Your task to perform on an android device: change keyboard looks Image 0: 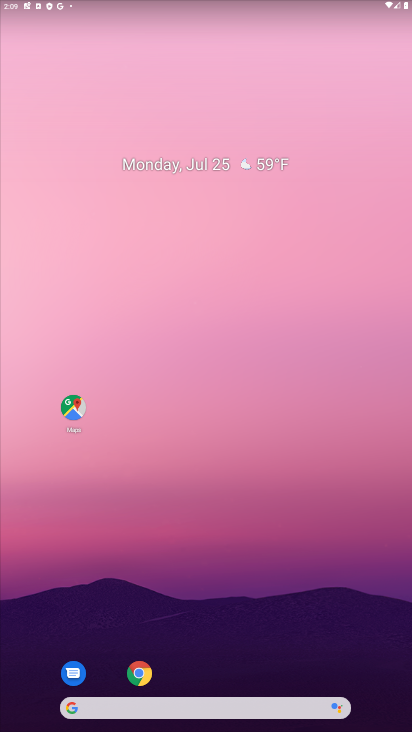
Step 0: drag from (191, 657) to (246, 159)
Your task to perform on an android device: change keyboard looks Image 1: 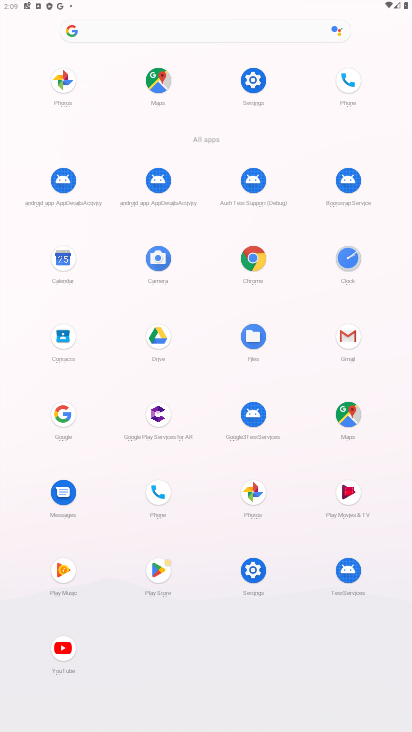
Step 1: click (259, 84)
Your task to perform on an android device: change keyboard looks Image 2: 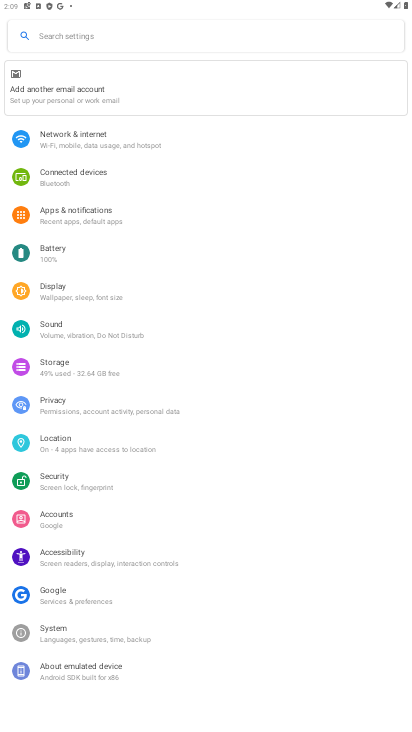
Step 2: click (61, 627)
Your task to perform on an android device: change keyboard looks Image 3: 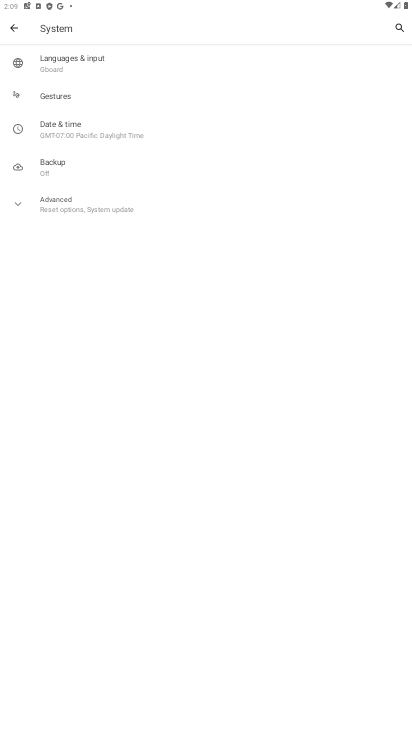
Step 3: click (94, 67)
Your task to perform on an android device: change keyboard looks Image 4: 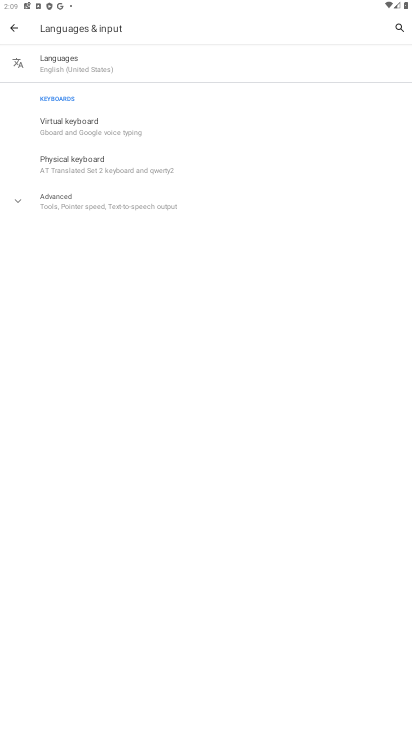
Step 4: click (96, 116)
Your task to perform on an android device: change keyboard looks Image 5: 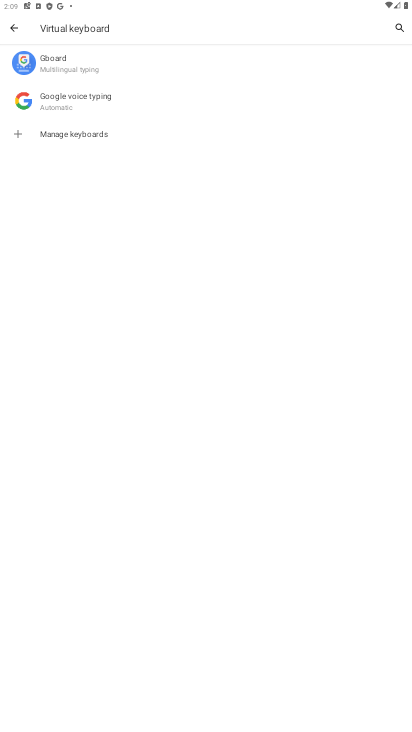
Step 5: click (52, 99)
Your task to perform on an android device: change keyboard looks Image 6: 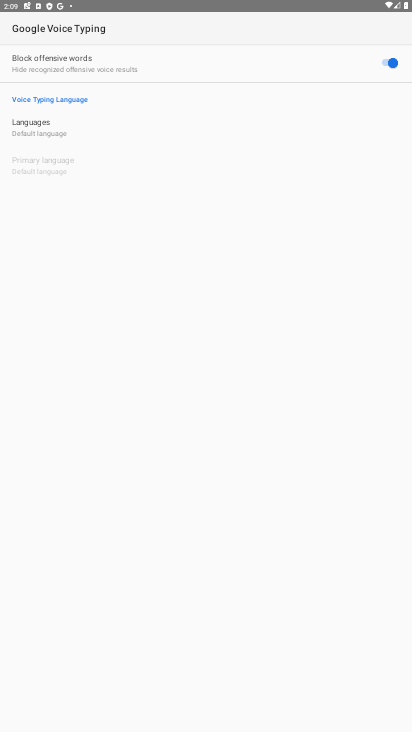
Step 6: click (55, 137)
Your task to perform on an android device: change keyboard looks Image 7: 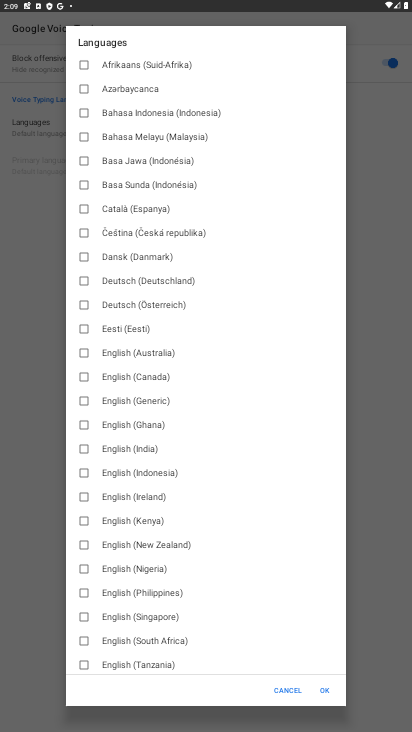
Step 7: click (28, 215)
Your task to perform on an android device: change keyboard looks Image 8: 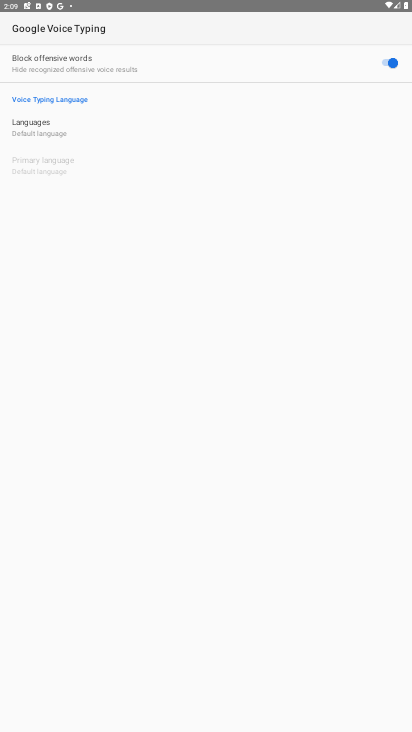
Step 8: press back button
Your task to perform on an android device: change keyboard looks Image 9: 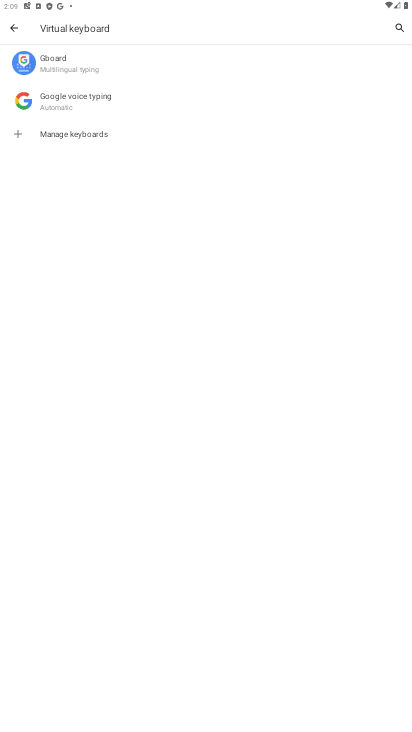
Step 9: click (98, 70)
Your task to perform on an android device: change keyboard looks Image 10: 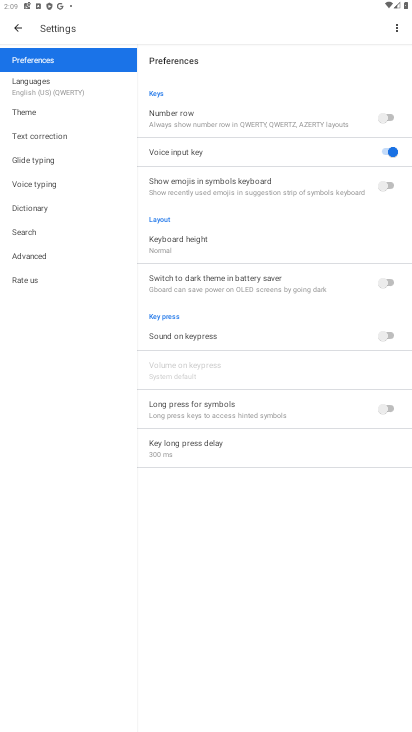
Step 10: click (31, 117)
Your task to perform on an android device: change keyboard looks Image 11: 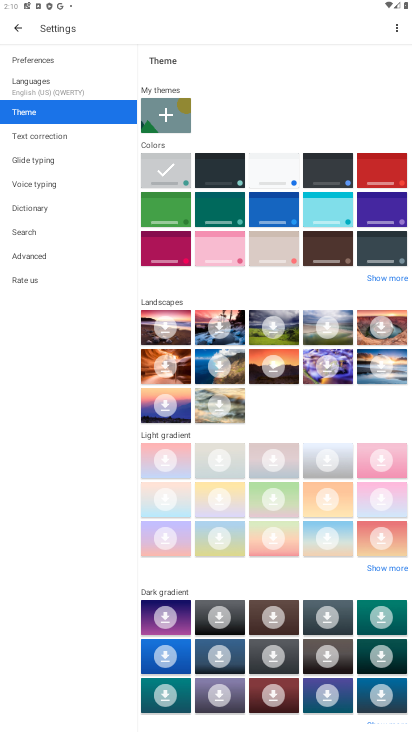
Step 11: click (279, 253)
Your task to perform on an android device: change keyboard looks Image 12: 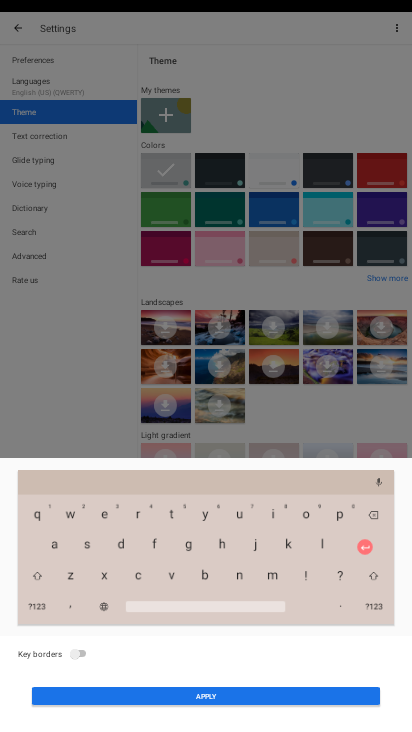
Step 12: click (201, 703)
Your task to perform on an android device: change keyboard looks Image 13: 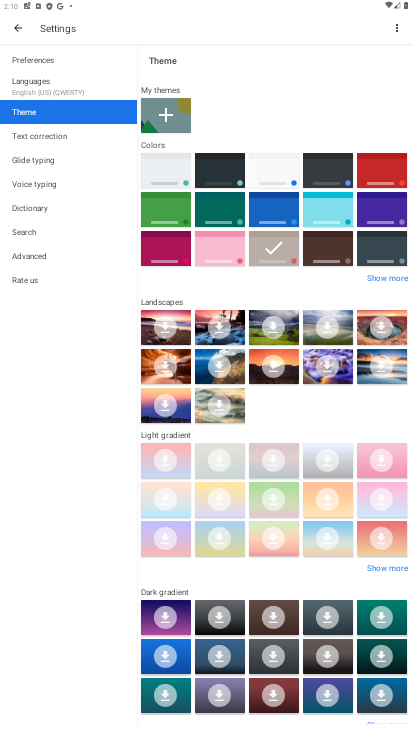
Step 13: task complete